Your task to perform on an android device: turn on the 24-hour format for clock Image 0: 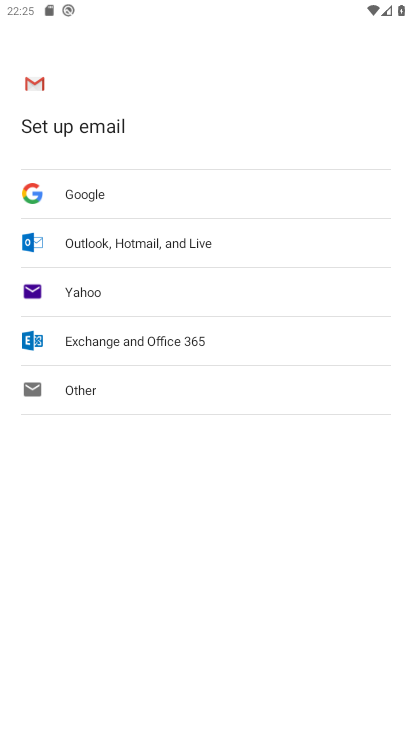
Step 0: press home button
Your task to perform on an android device: turn on the 24-hour format for clock Image 1: 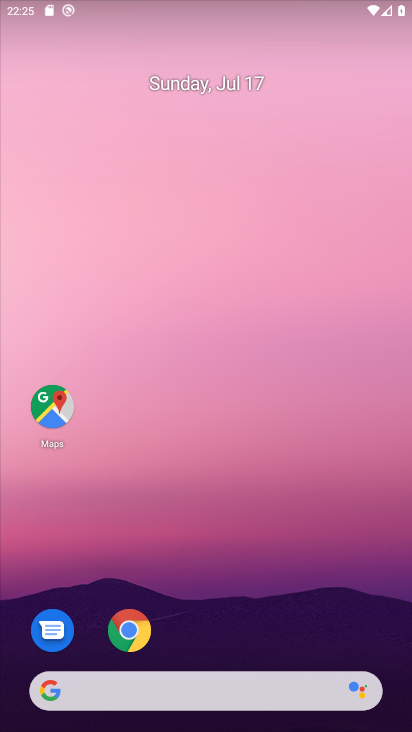
Step 1: drag from (241, 621) to (300, 27)
Your task to perform on an android device: turn on the 24-hour format for clock Image 2: 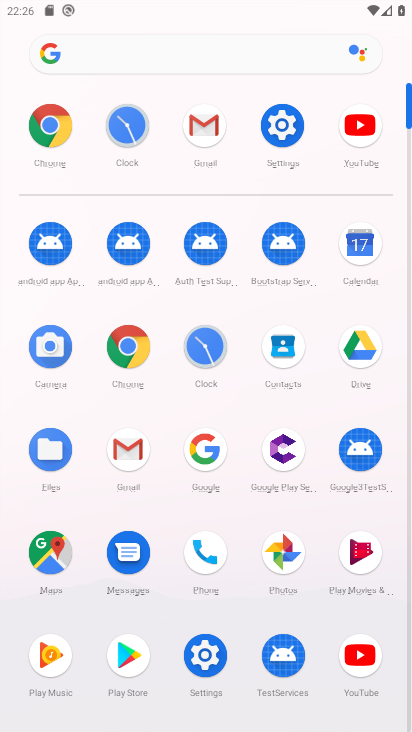
Step 2: click (206, 657)
Your task to perform on an android device: turn on the 24-hour format for clock Image 3: 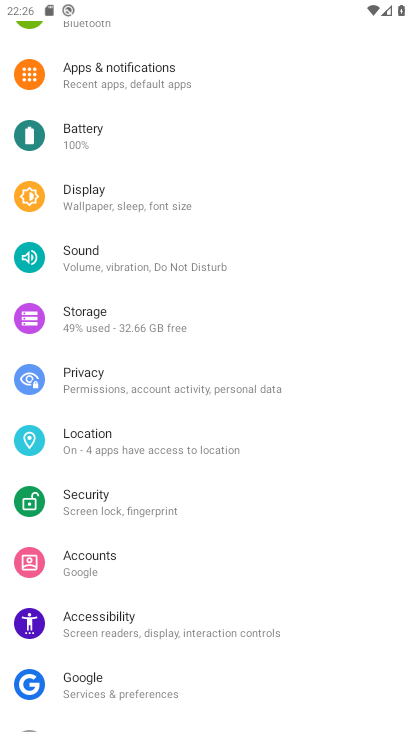
Step 3: drag from (127, 689) to (177, 287)
Your task to perform on an android device: turn on the 24-hour format for clock Image 4: 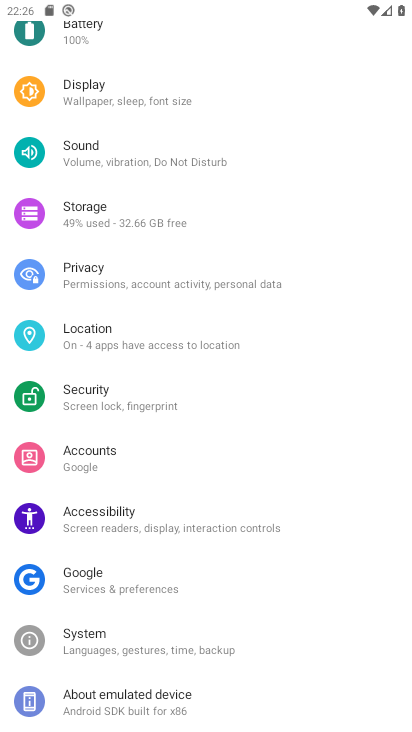
Step 4: drag from (147, 661) to (157, 400)
Your task to perform on an android device: turn on the 24-hour format for clock Image 5: 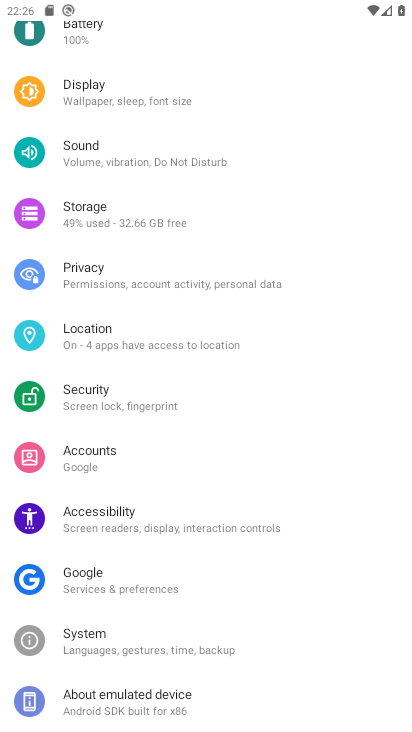
Step 5: click (109, 640)
Your task to perform on an android device: turn on the 24-hour format for clock Image 6: 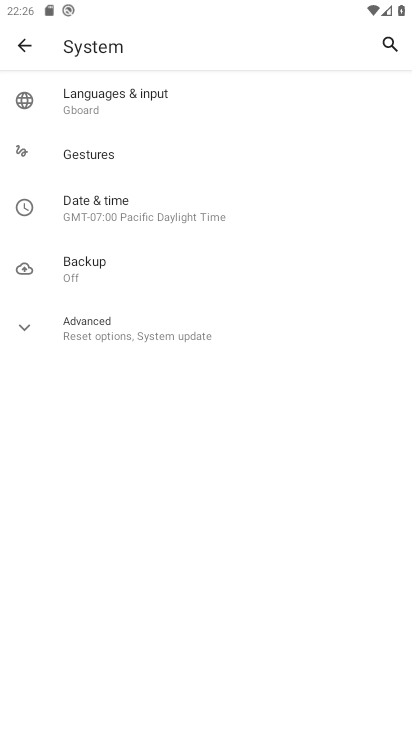
Step 6: click (126, 215)
Your task to perform on an android device: turn on the 24-hour format for clock Image 7: 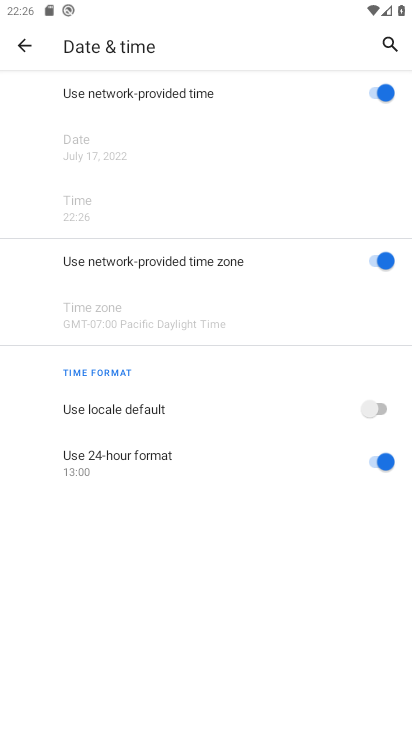
Step 7: task complete